Your task to perform on an android device: set the timer Image 0: 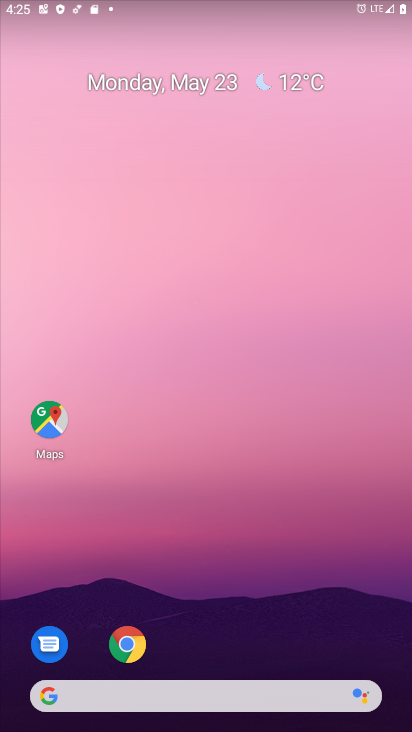
Step 0: drag from (247, 616) to (178, 151)
Your task to perform on an android device: set the timer Image 1: 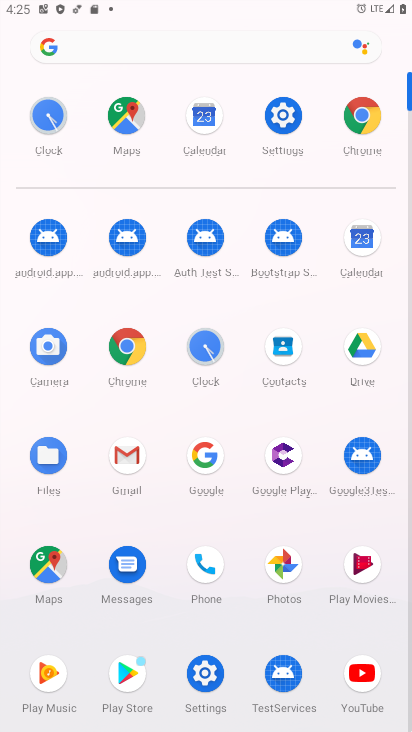
Step 1: click (53, 107)
Your task to perform on an android device: set the timer Image 2: 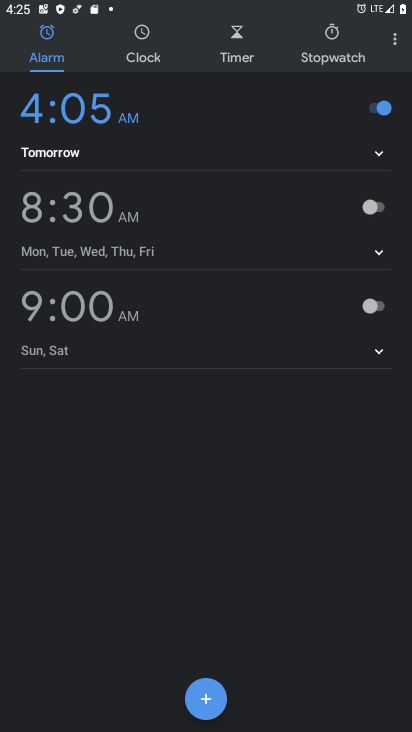
Step 2: click (239, 58)
Your task to perform on an android device: set the timer Image 3: 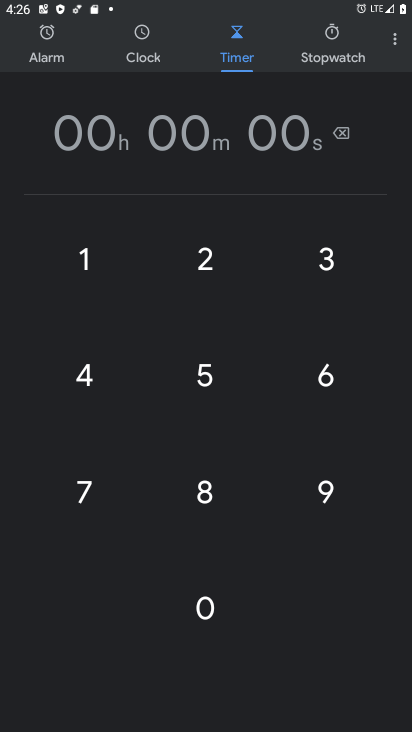
Step 3: type "1000000"
Your task to perform on an android device: set the timer Image 4: 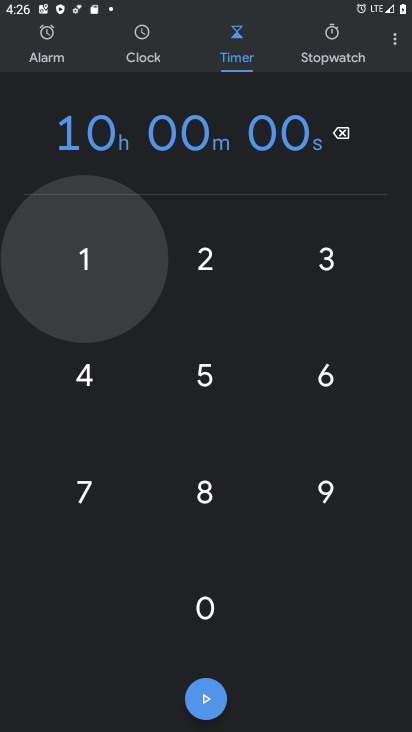
Step 4: click (205, 694)
Your task to perform on an android device: set the timer Image 5: 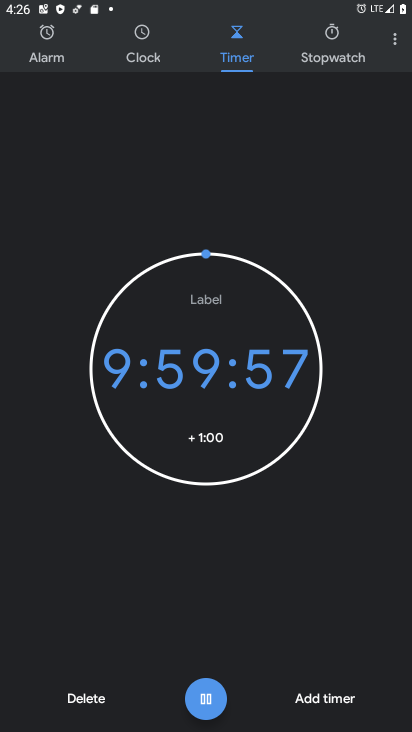
Step 5: task complete